Your task to perform on an android device: change alarm snooze length Image 0: 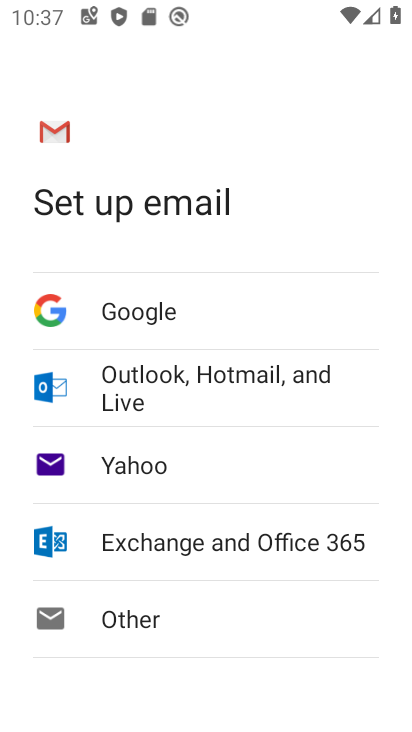
Step 0: press home button
Your task to perform on an android device: change alarm snooze length Image 1: 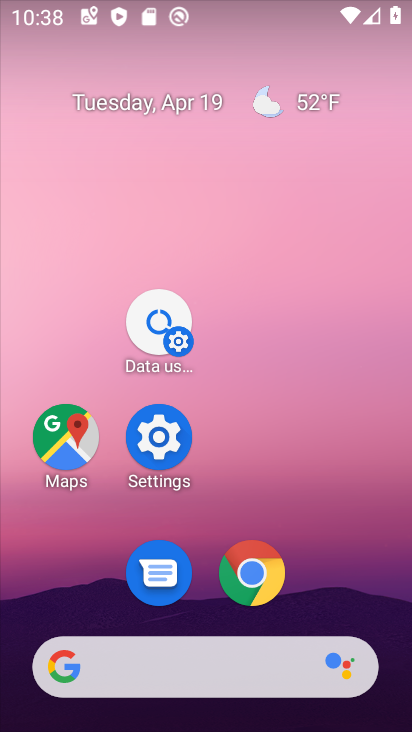
Step 1: drag from (339, 479) to (359, 39)
Your task to perform on an android device: change alarm snooze length Image 2: 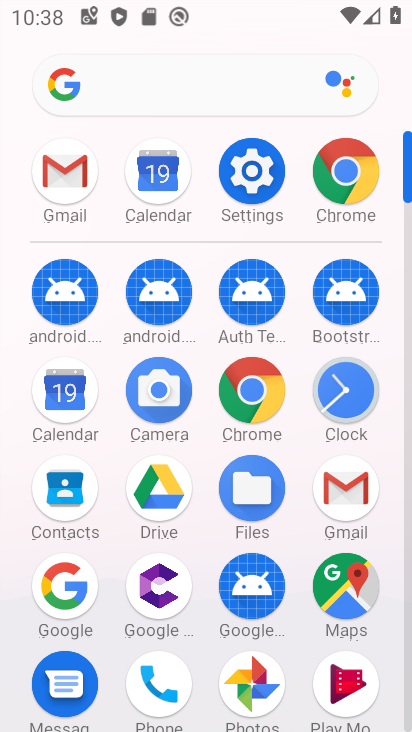
Step 2: click (346, 399)
Your task to perform on an android device: change alarm snooze length Image 3: 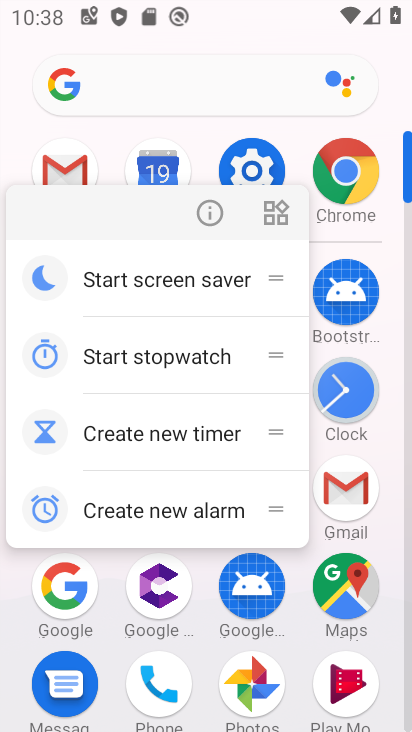
Step 3: click (331, 390)
Your task to perform on an android device: change alarm snooze length Image 4: 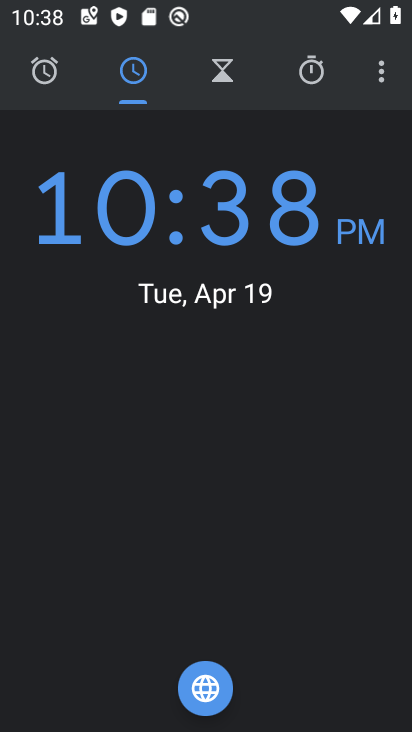
Step 4: click (376, 73)
Your task to perform on an android device: change alarm snooze length Image 5: 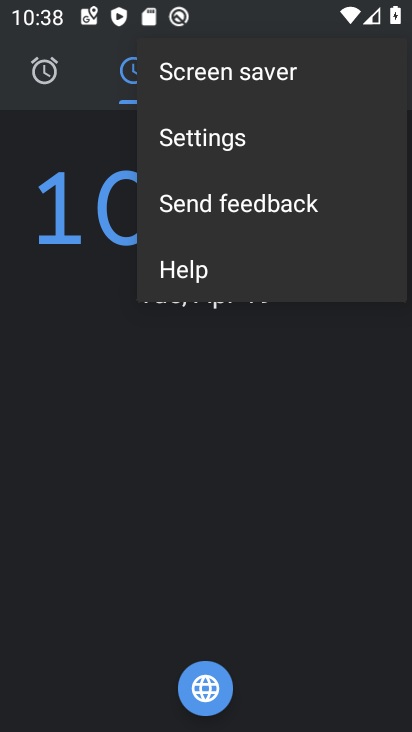
Step 5: click (234, 139)
Your task to perform on an android device: change alarm snooze length Image 6: 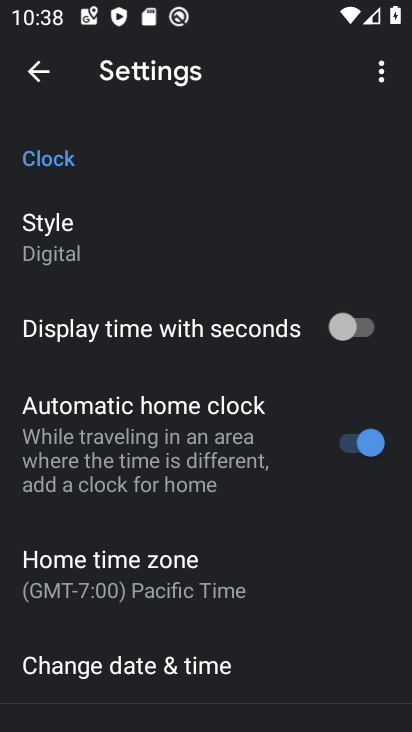
Step 6: drag from (188, 506) to (172, 137)
Your task to perform on an android device: change alarm snooze length Image 7: 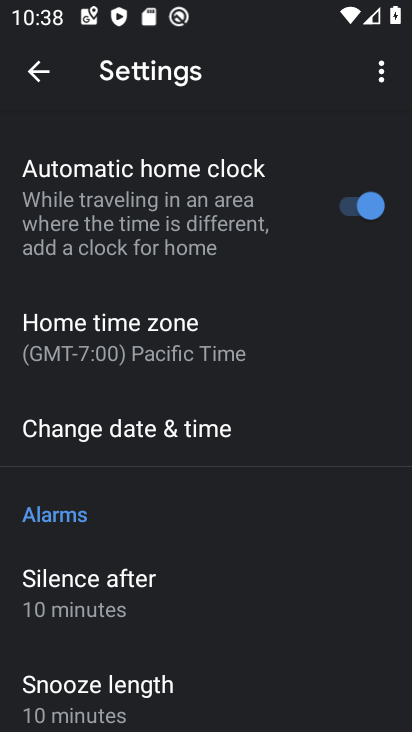
Step 7: drag from (134, 380) to (129, 141)
Your task to perform on an android device: change alarm snooze length Image 8: 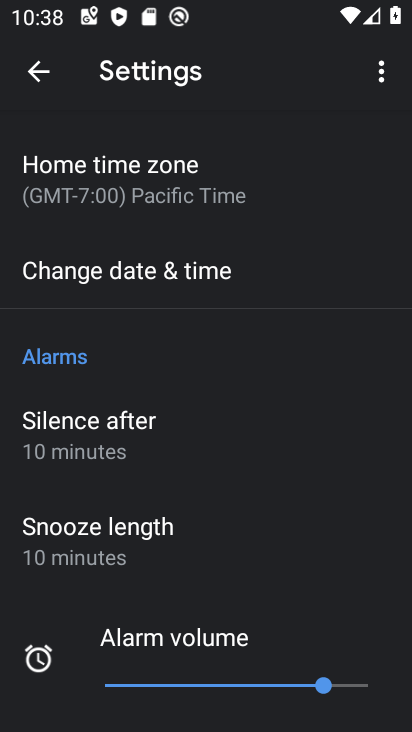
Step 8: click (52, 550)
Your task to perform on an android device: change alarm snooze length Image 9: 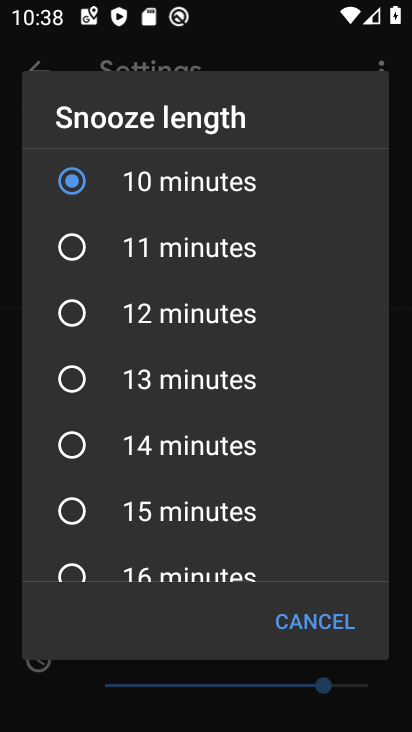
Step 9: click (71, 318)
Your task to perform on an android device: change alarm snooze length Image 10: 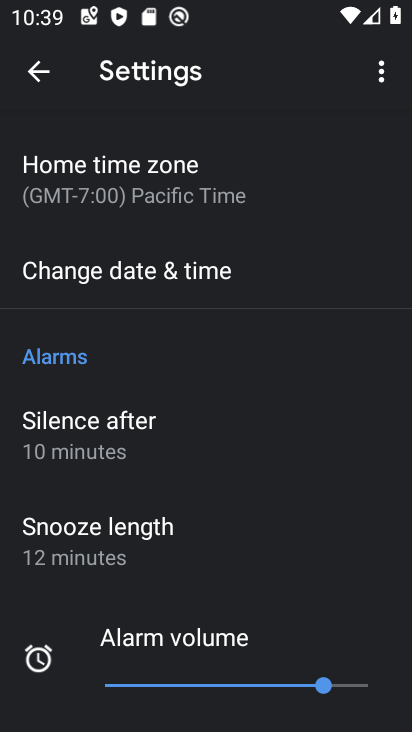
Step 10: task complete